Your task to perform on an android device: create a new album in the google photos Image 0: 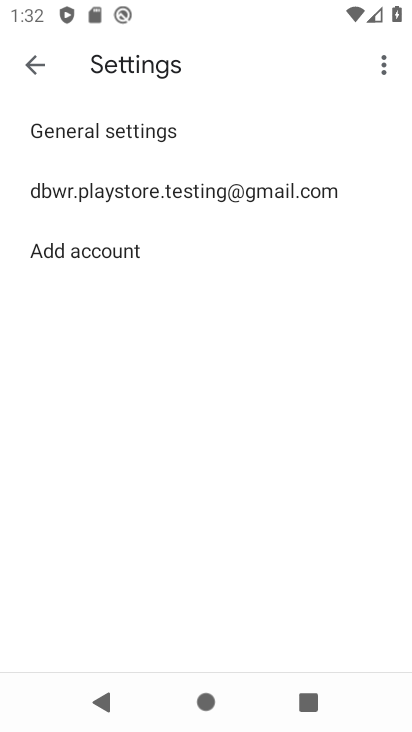
Step 0: press home button
Your task to perform on an android device: create a new album in the google photos Image 1: 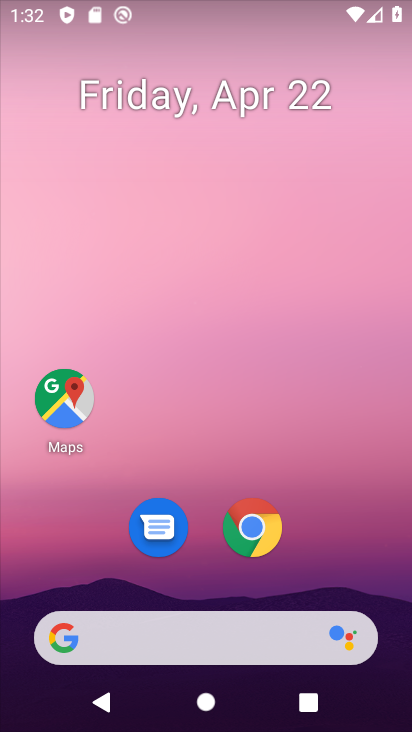
Step 1: drag from (353, 604) to (270, 119)
Your task to perform on an android device: create a new album in the google photos Image 2: 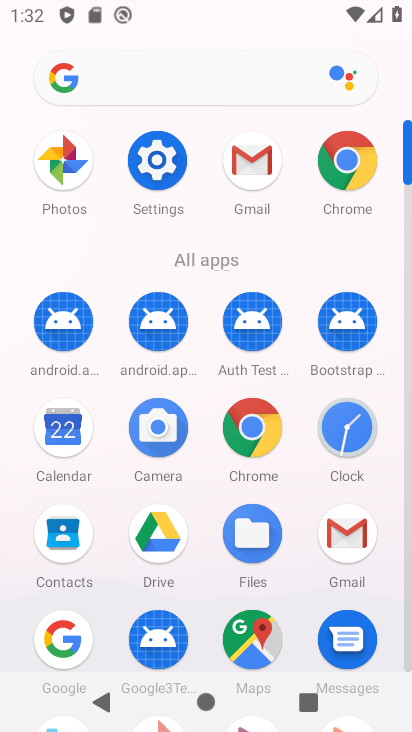
Step 2: click (408, 668)
Your task to perform on an android device: create a new album in the google photos Image 3: 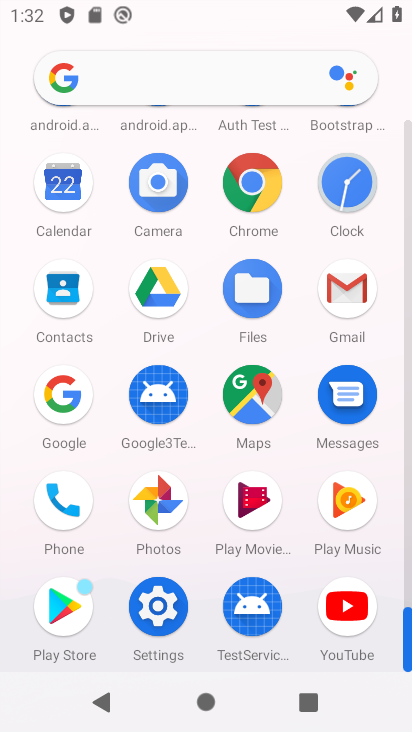
Step 3: click (147, 506)
Your task to perform on an android device: create a new album in the google photos Image 4: 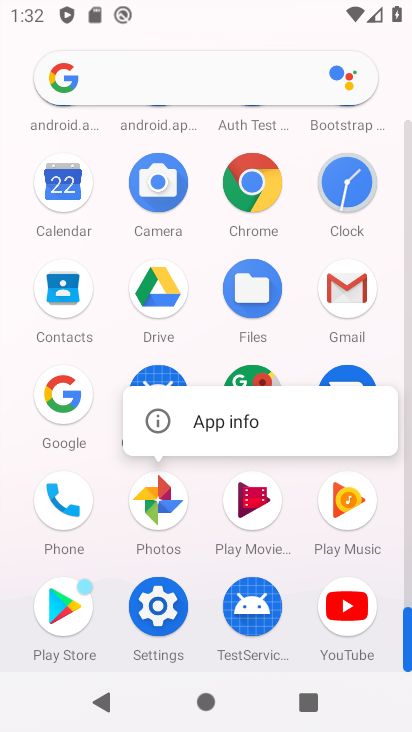
Step 4: click (148, 506)
Your task to perform on an android device: create a new album in the google photos Image 5: 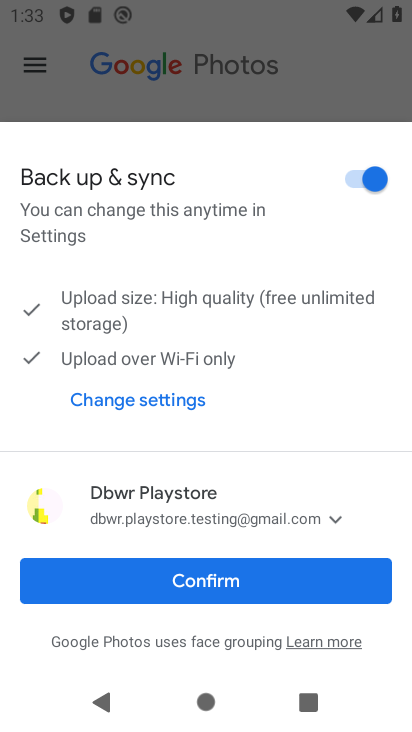
Step 5: task complete